Your task to perform on an android device: Open battery settings Image 0: 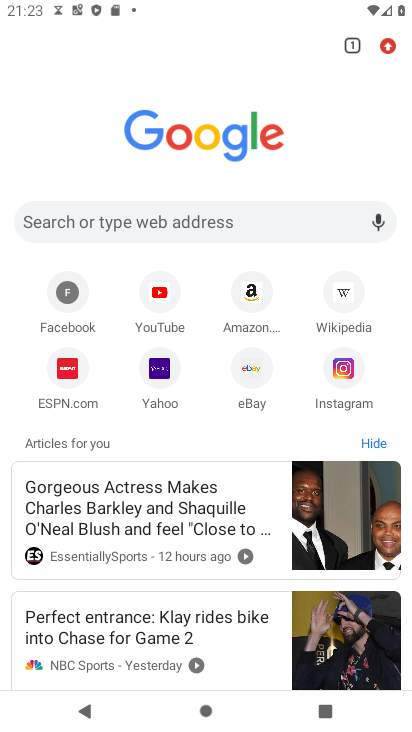
Step 0: press home button
Your task to perform on an android device: Open battery settings Image 1: 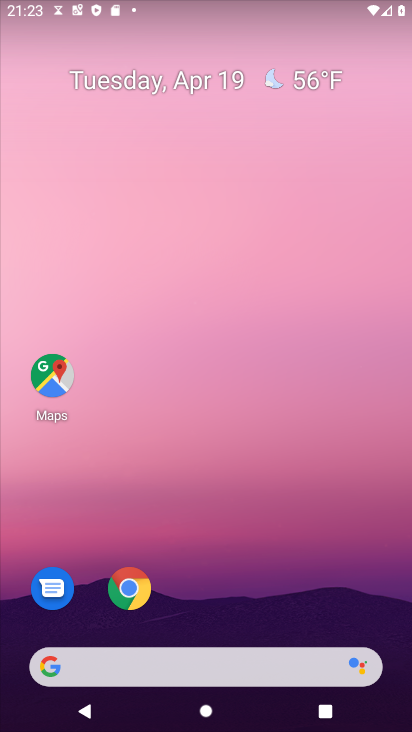
Step 1: drag from (226, 613) to (275, 47)
Your task to perform on an android device: Open battery settings Image 2: 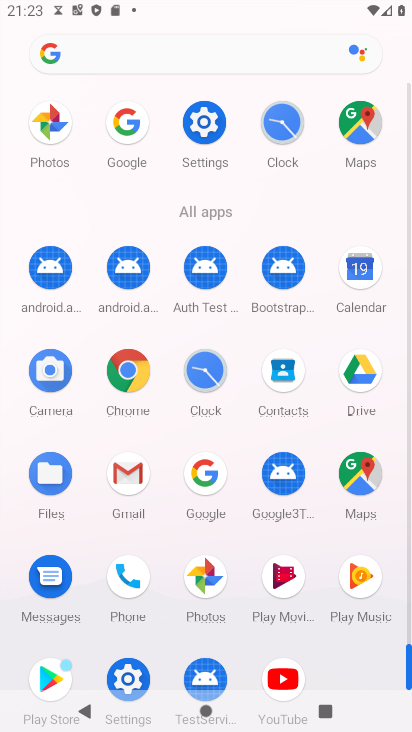
Step 2: drag from (159, 544) to (187, 308)
Your task to perform on an android device: Open battery settings Image 3: 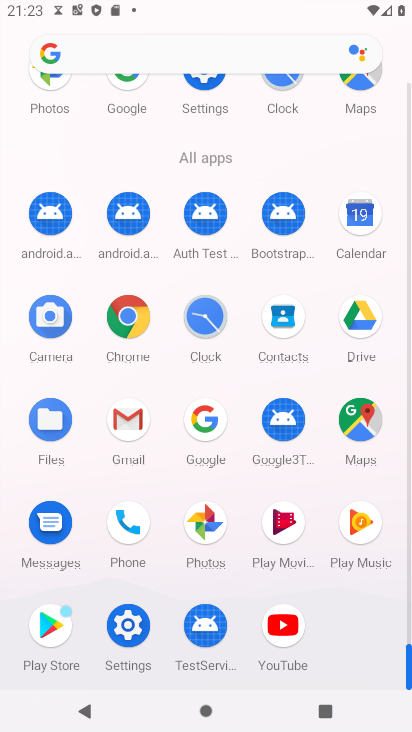
Step 3: click (132, 625)
Your task to perform on an android device: Open battery settings Image 4: 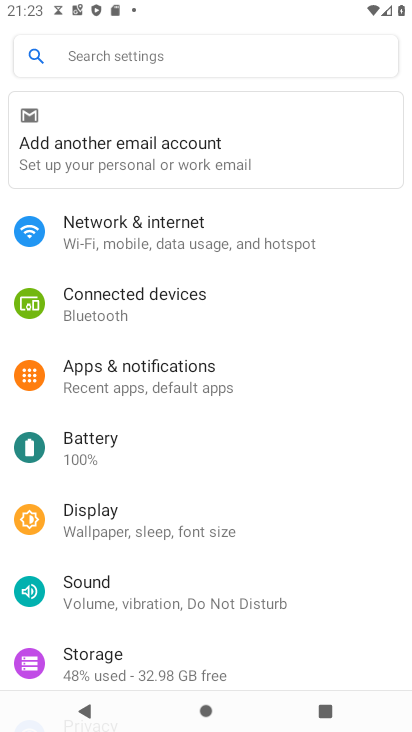
Step 4: click (104, 442)
Your task to perform on an android device: Open battery settings Image 5: 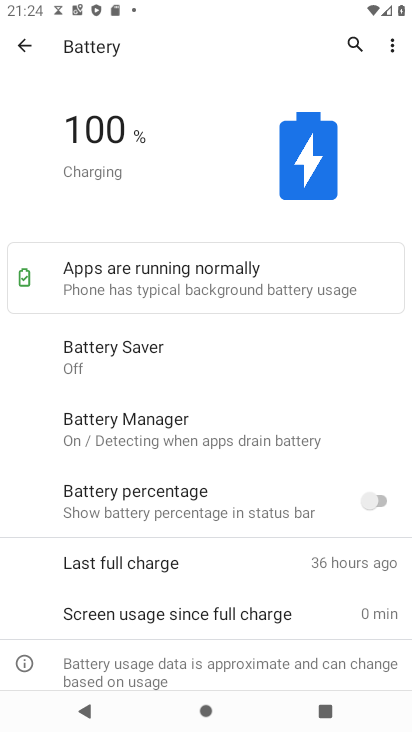
Step 5: task complete